Your task to perform on an android device: Open Google Chrome Image 0: 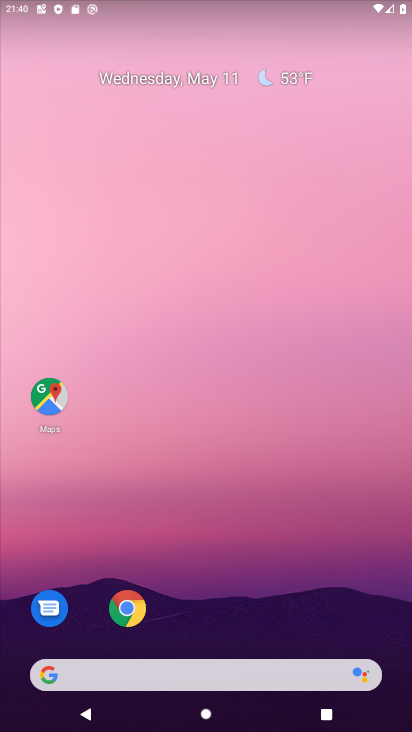
Step 0: click (129, 613)
Your task to perform on an android device: Open Google Chrome Image 1: 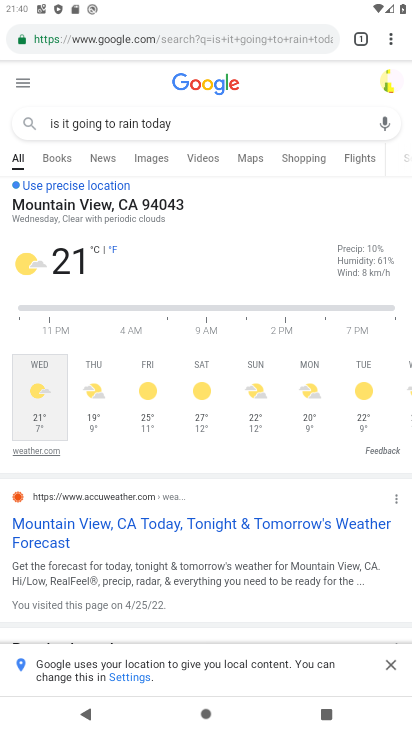
Step 1: task complete